Your task to perform on an android device: Go to eBay Image 0: 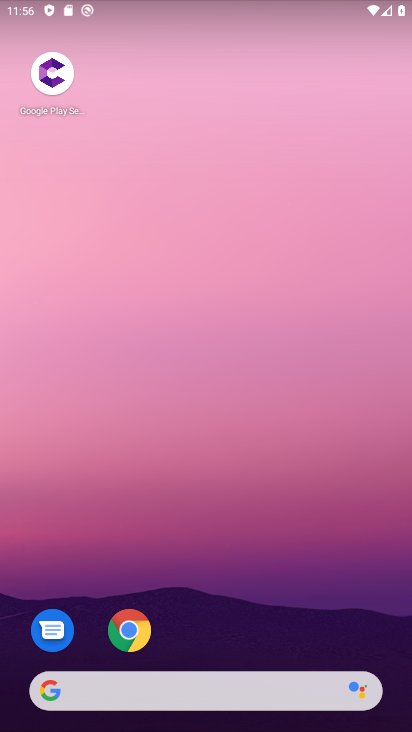
Step 0: press home button
Your task to perform on an android device: Go to eBay Image 1: 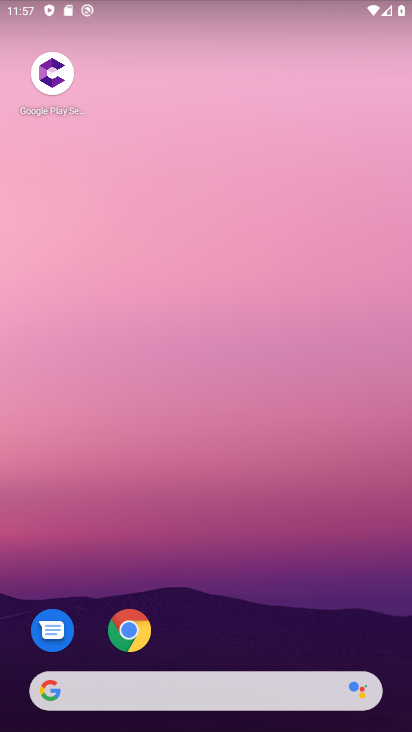
Step 1: click (51, 682)
Your task to perform on an android device: Go to eBay Image 2: 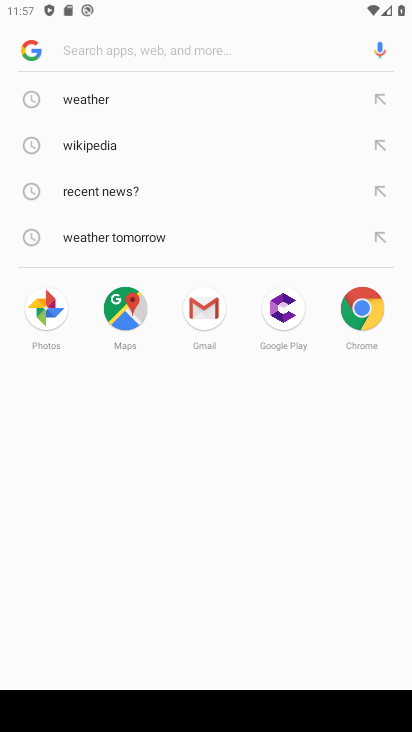
Step 2: type "eBay"
Your task to perform on an android device: Go to eBay Image 3: 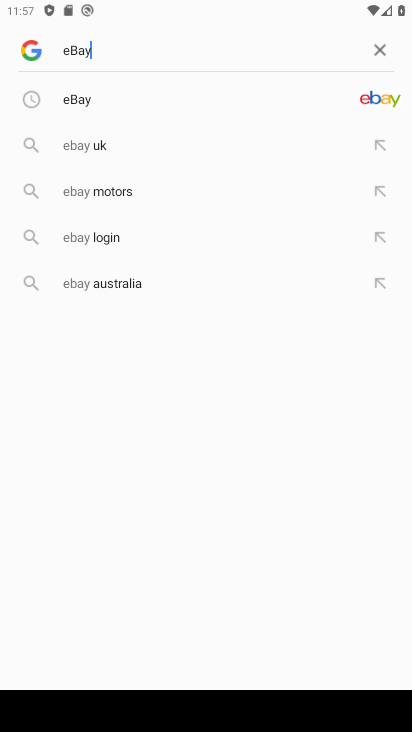
Step 3: drag from (379, 82) to (82, 98)
Your task to perform on an android device: Go to eBay Image 4: 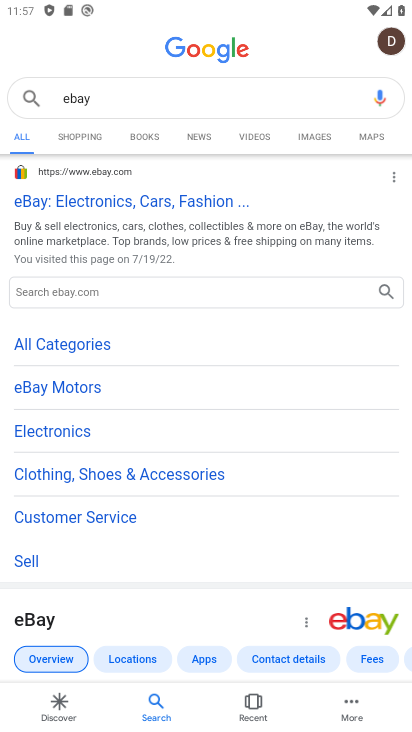
Step 4: click (93, 201)
Your task to perform on an android device: Go to eBay Image 5: 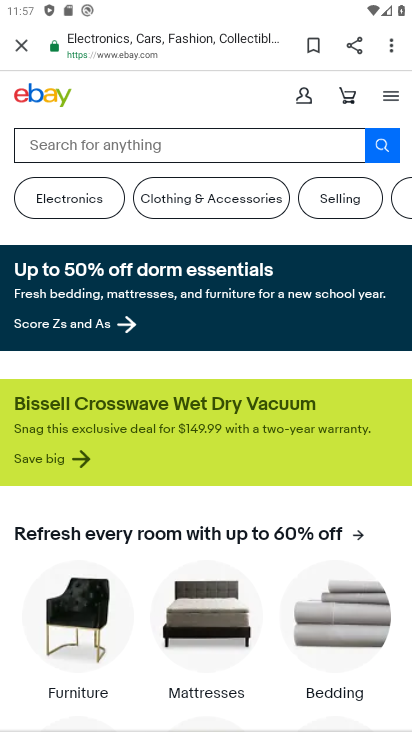
Step 5: task complete